Your task to perform on an android device: Open ESPN.com Image 0: 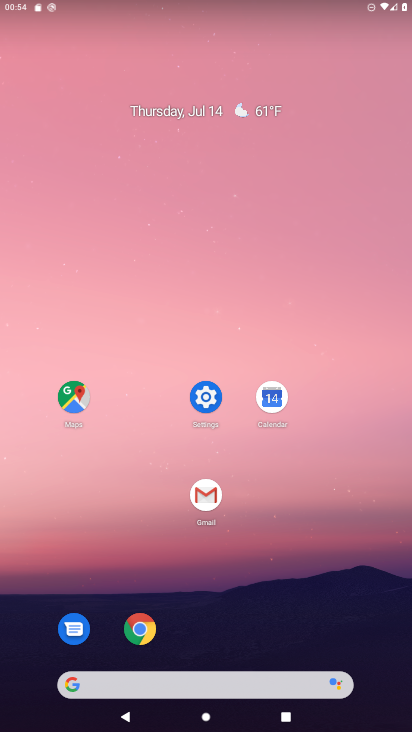
Step 0: click (138, 632)
Your task to perform on an android device: Open ESPN.com Image 1: 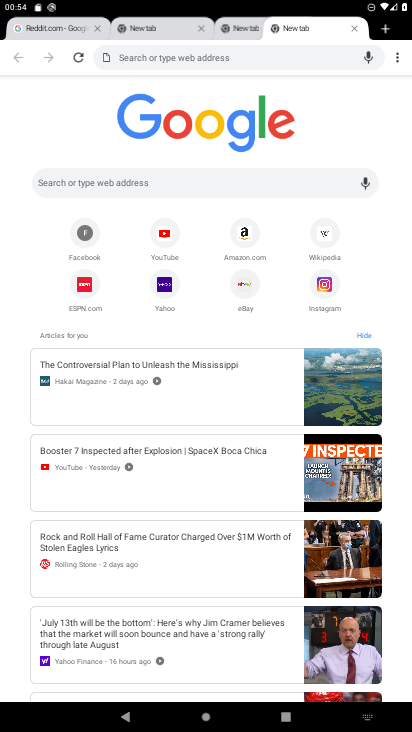
Step 1: click (152, 183)
Your task to perform on an android device: Open ESPN.com Image 2: 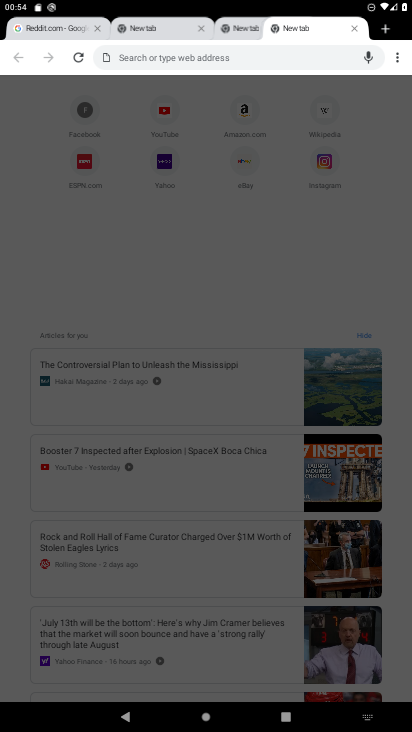
Step 2: click (241, 46)
Your task to perform on an android device: Open ESPN.com Image 3: 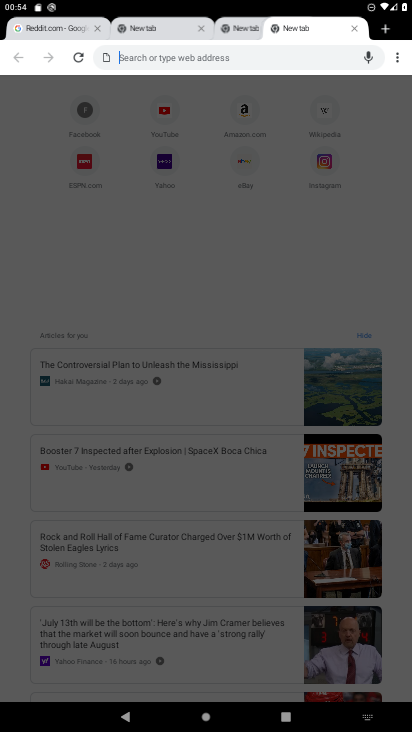
Step 3: type "ESPN.com"
Your task to perform on an android device: Open ESPN.com Image 4: 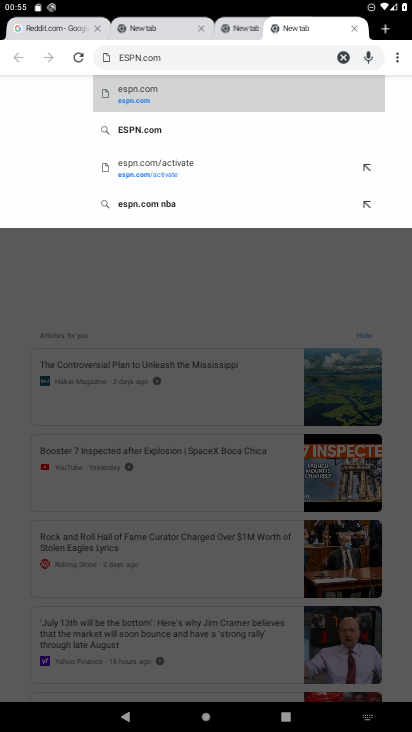
Step 4: click (129, 124)
Your task to perform on an android device: Open ESPN.com Image 5: 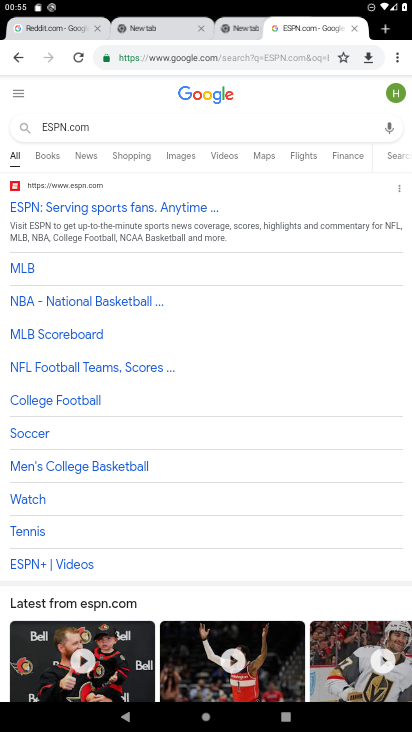
Step 5: click (80, 218)
Your task to perform on an android device: Open ESPN.com Image 6: 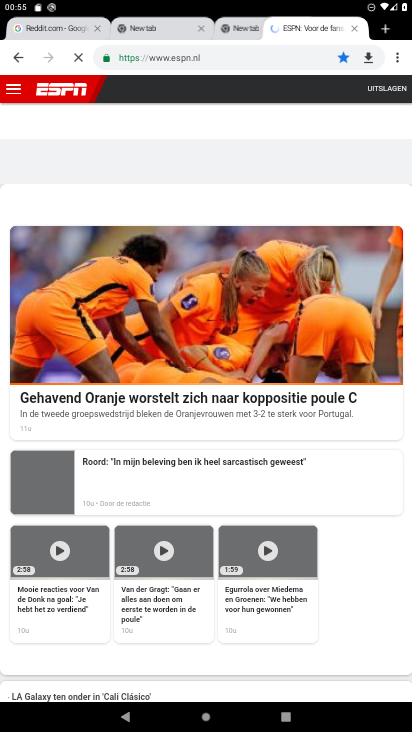
Step 6: task complete